Your task to perform on an android device: check out phone information Image 0: 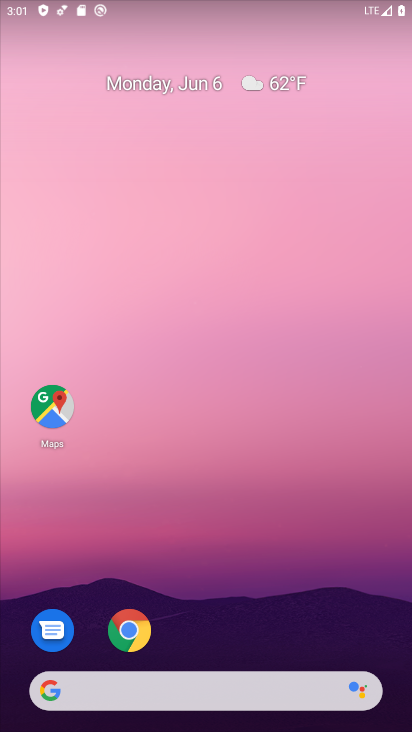
Step 0: drag from (223, 637) to (275, 2)
Your task to perform on an android device: check out phone information Image 1: 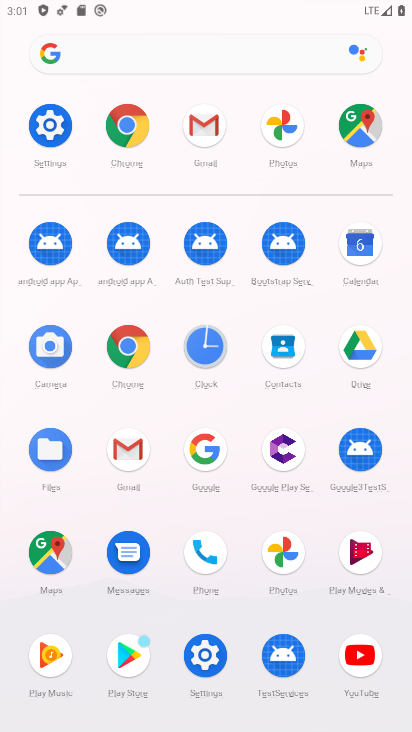
Step 1: click (200, 539)
Your task to perform on an android device: check out phone information Image 2: 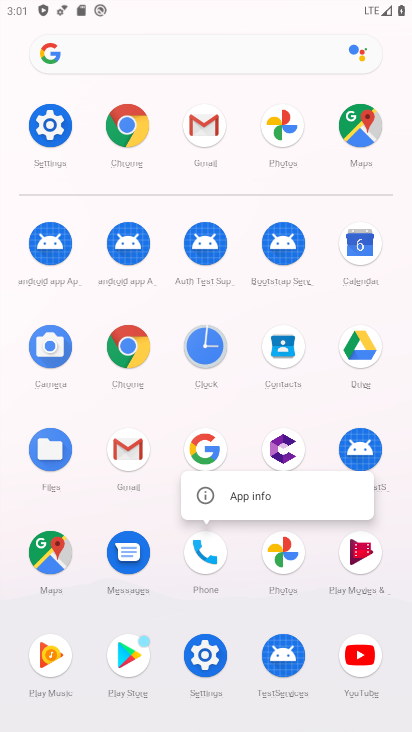
Step 2: click (211, 507)
Your task to perform on an android device: check out phone information Image 3: 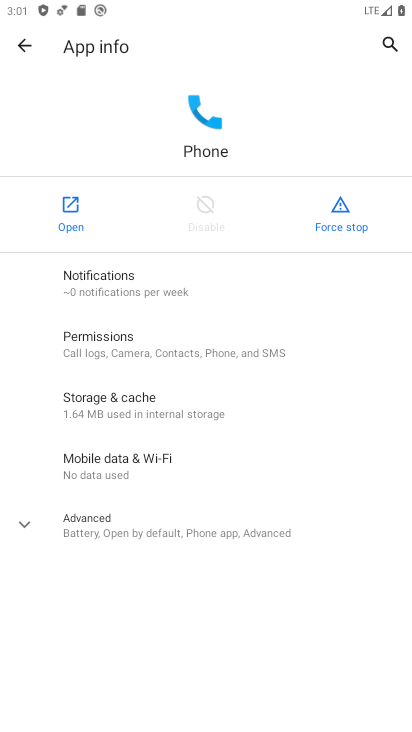
Step 3: task complete